Your task to perform on an android device: read, delete, or share a saved page in the chrome app Image 0: 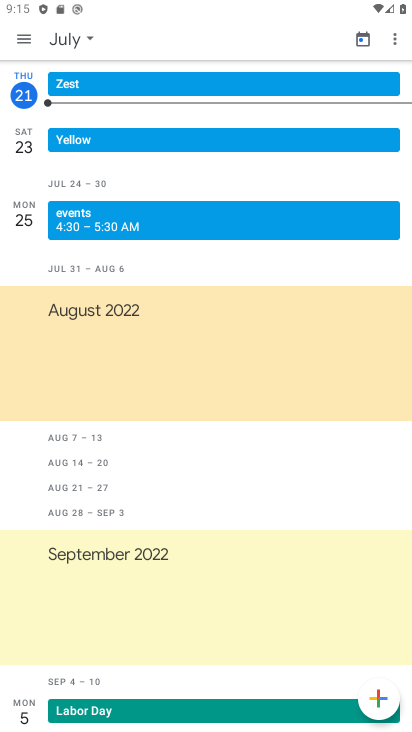
Step 0: task complete